Your task to perform on an android device: What is the news today? Image 0: 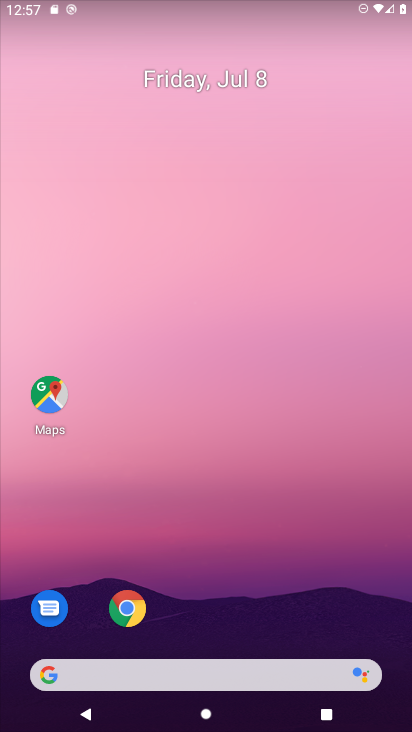
Step 0: drag from (276, 587) to (336, 115)
Your task to perform on an android device: What is the news today? Image 1: 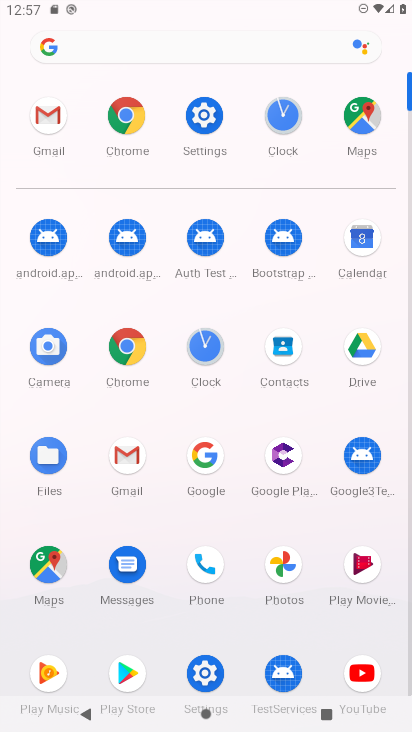
Step 1: click (229, 55)
Your task to perform on an android device: What is the news today? Image 2: 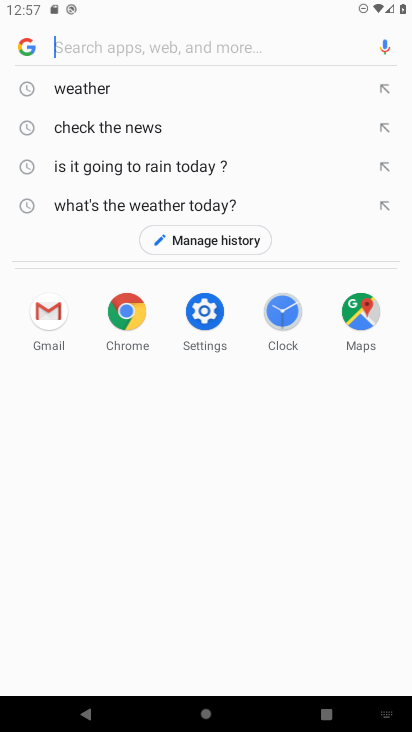
Step 2: type "news "
Your task to perform on an android device: What is the news today? Image 3: 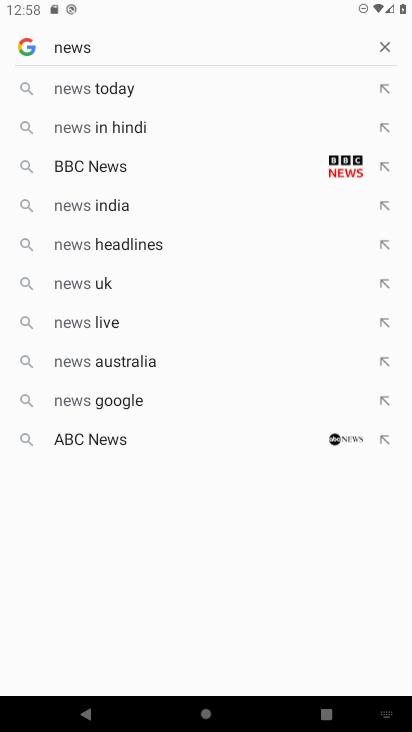
Step 3: click (156, 101)
Your task to perform on an android device: What is the news today? Image 4: 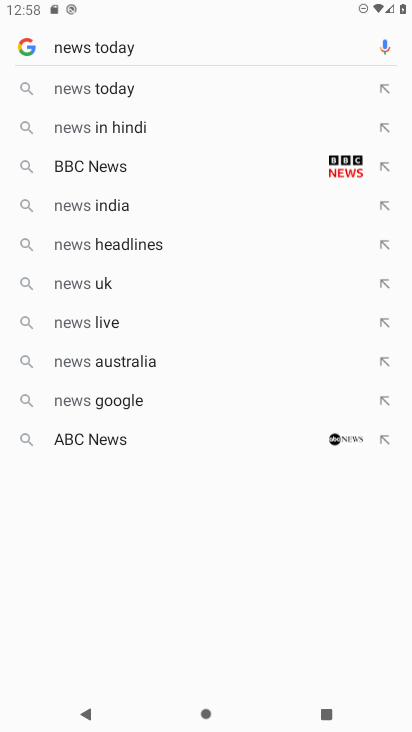
Step 4: task complete